Your task to perform on an android device: Go to eBay Image 0: 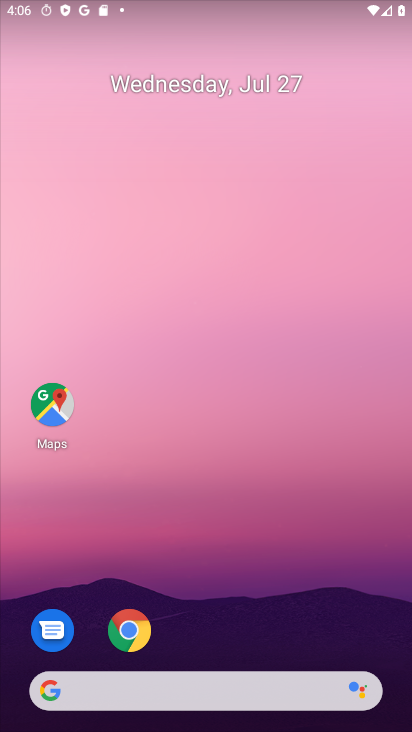
Step 0: click (133, 633)
Your task to perform on an android device: Go to eBay Image 1: 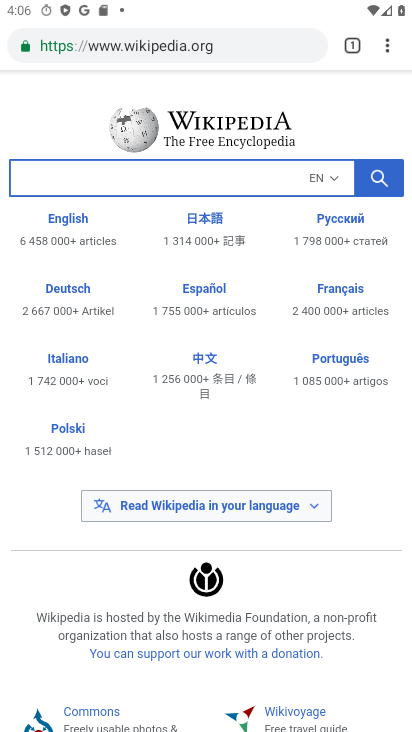
Step 1: click (156, 46)
Your task to perform on an android device: Go to eBay Image 2: 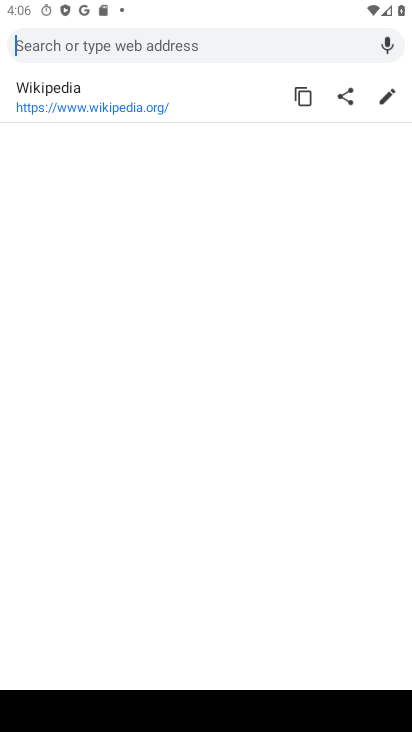
Step 2: type "eBay"
Your task to perform on an android device: Go to eBay Image 3: 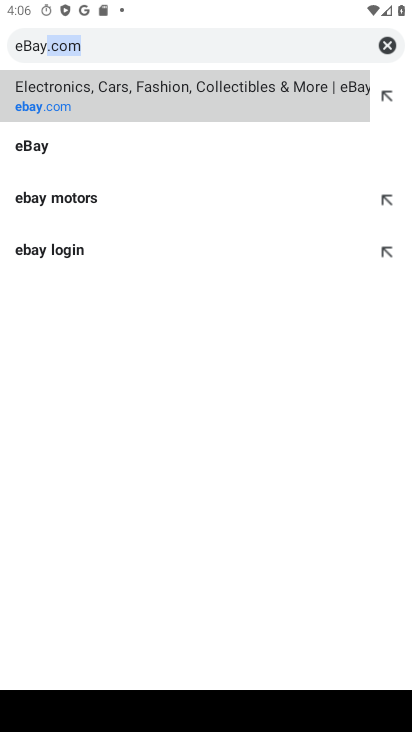
Step 3: click (104, 94)
Your task to perform on an android device: Go to eBay Image 4: 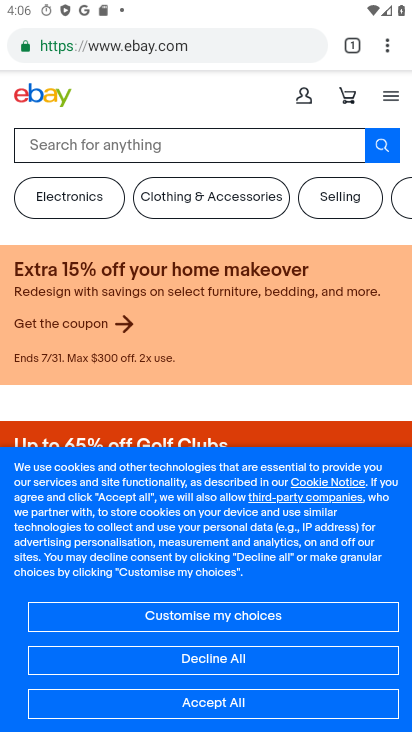
Step 4: task complete